Your task to perform on an android device: check storage Image 0: 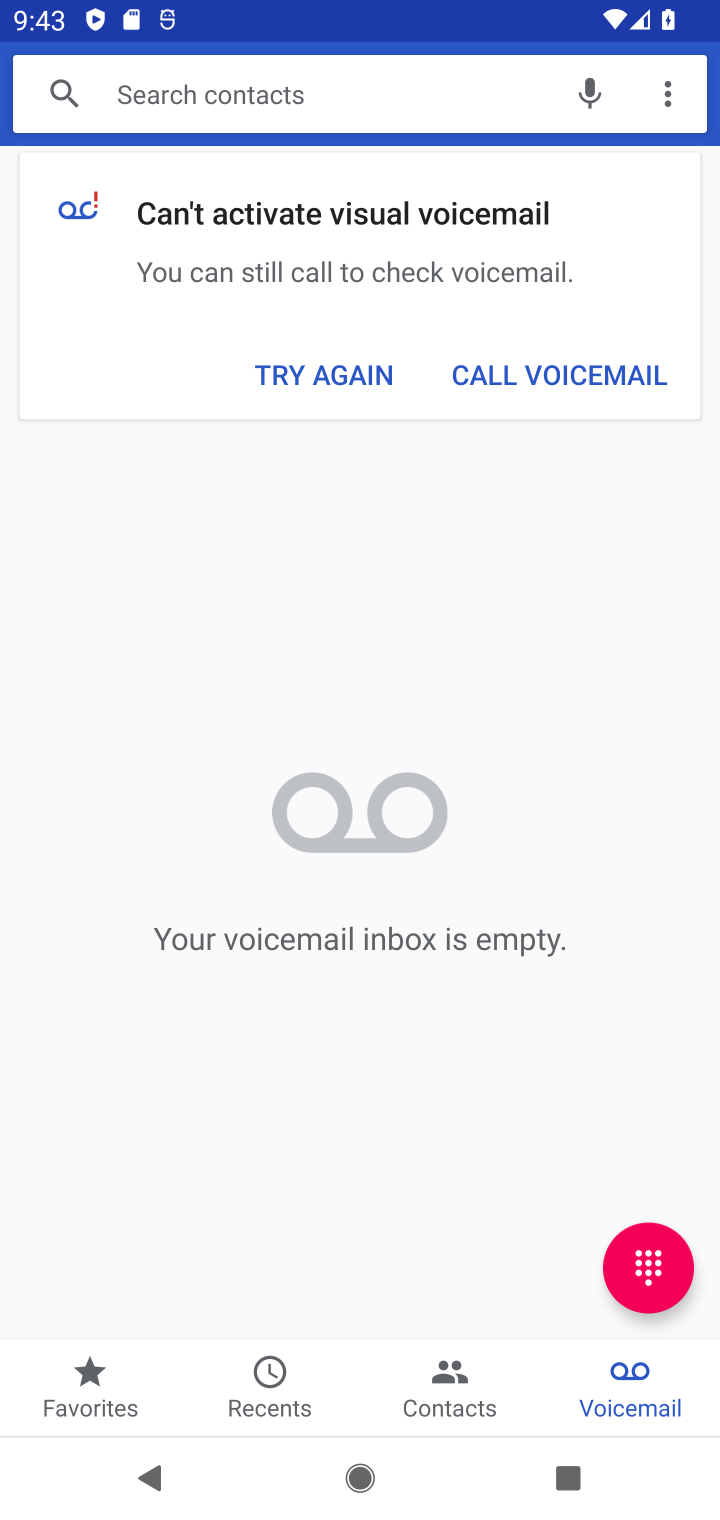
Step 0: press home button
Your task to perform on an android device: check storage Image 1: 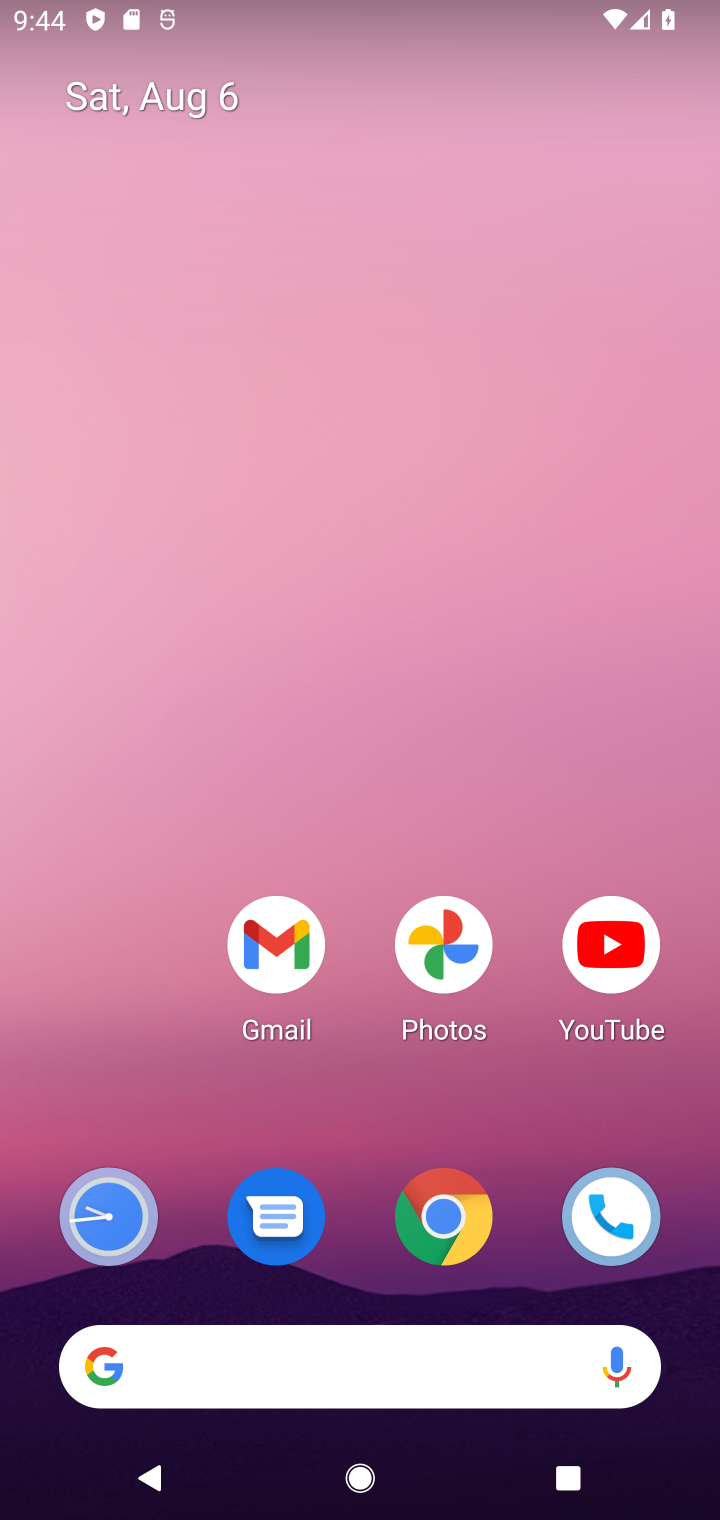
Step 1: drag from (361, 1314) to (361, 186)
Your task to perform on an android device: check storage Image 2: 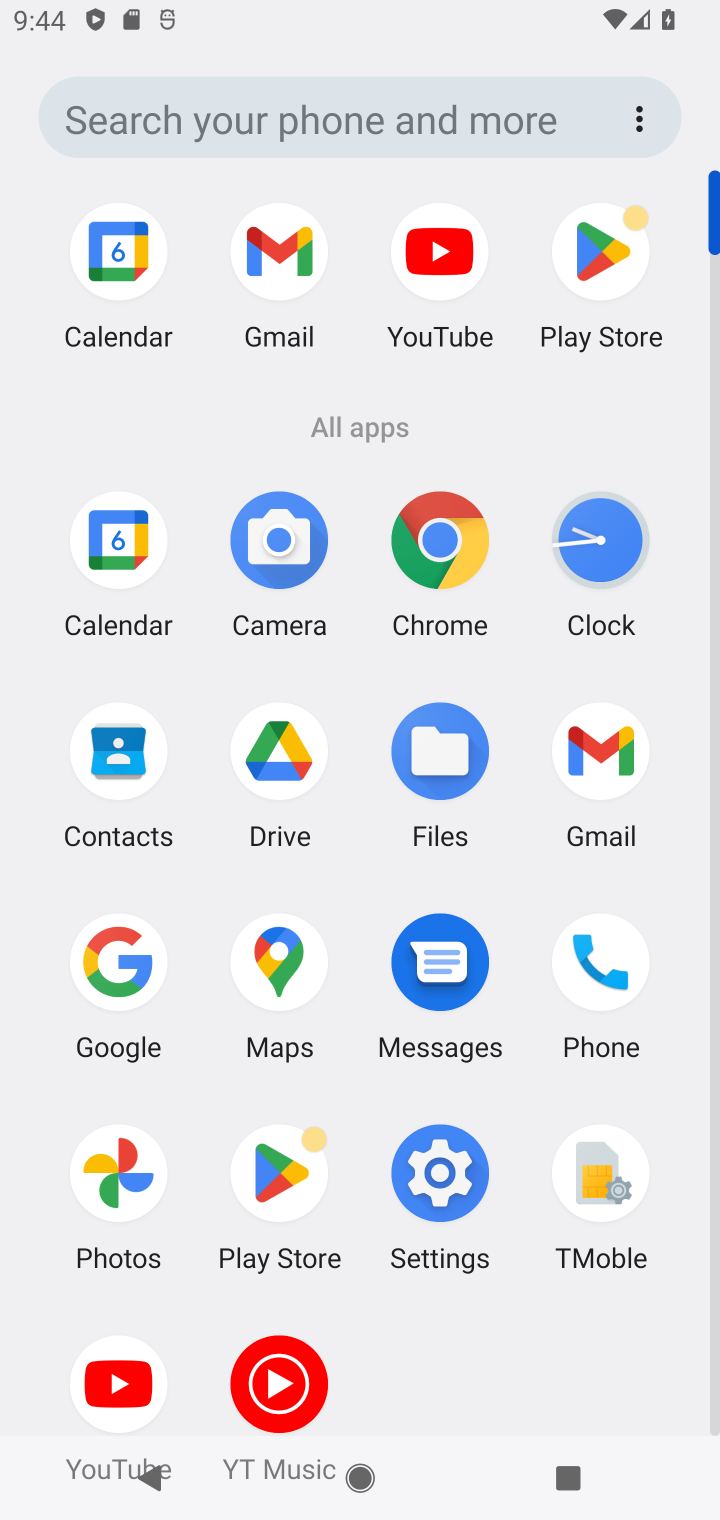
Step 2: click (442, 1181)
Your task to perform on an android device: check storage Image 3: 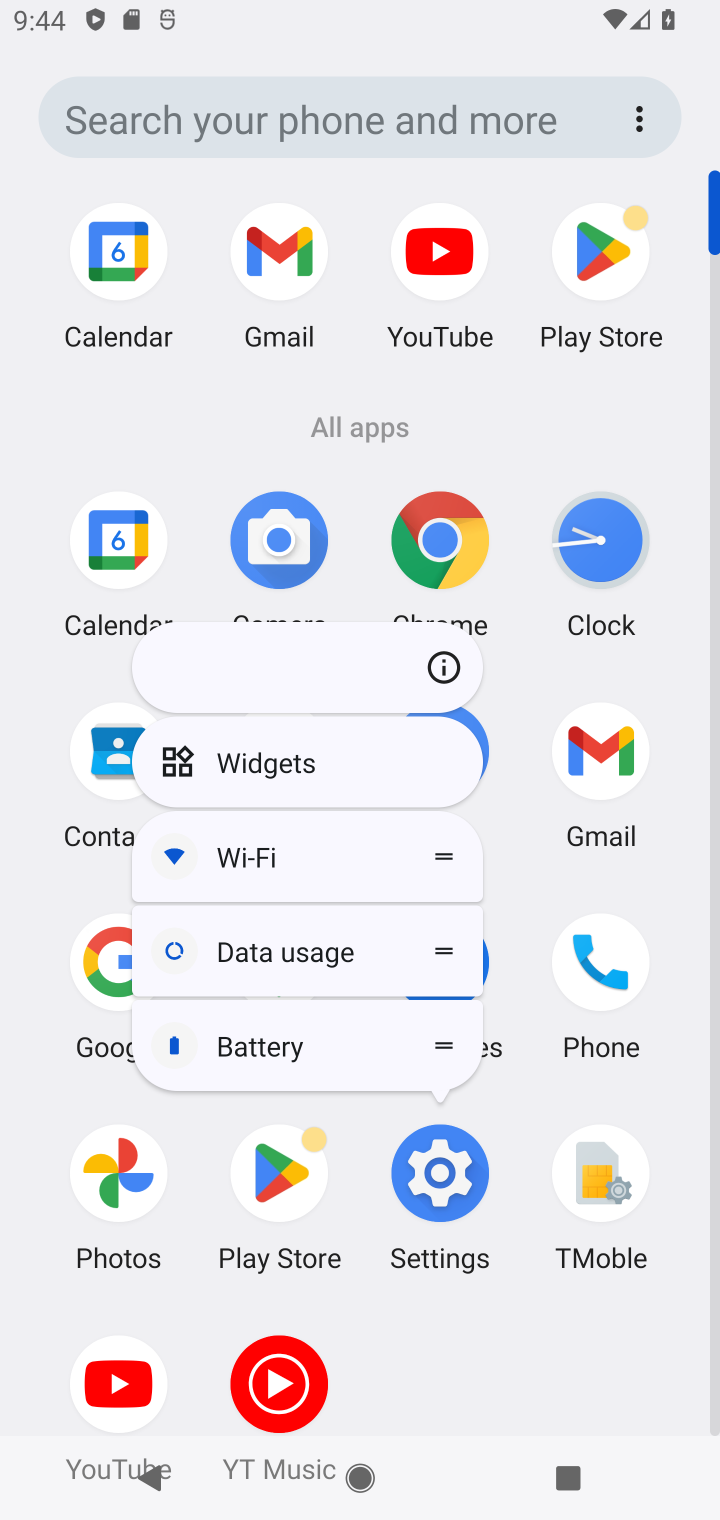
Step 3: click (442, 1178)
Your task to perform on an android device: check storage Image 4: 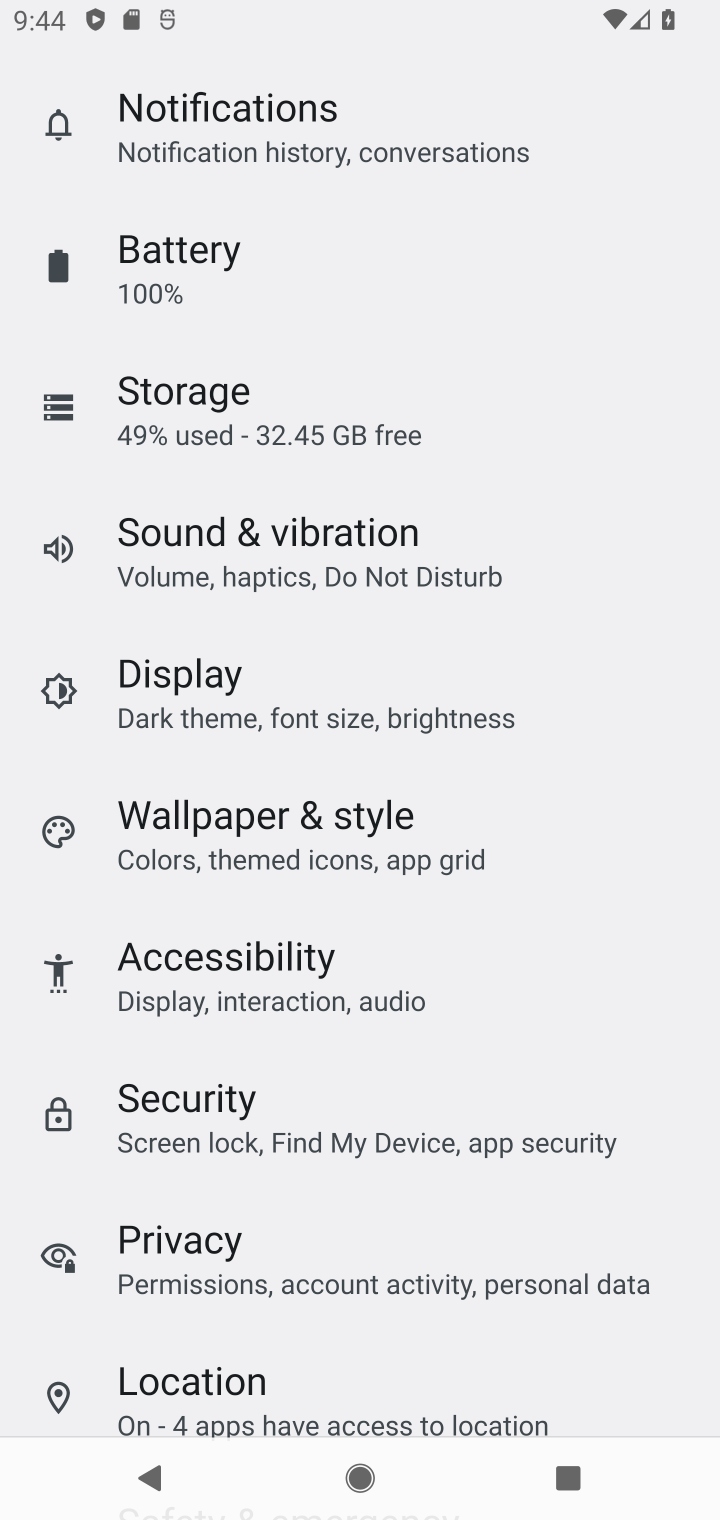
Step 4: click (178, 406)
Your task to perform on an android device: check storage Image 5: 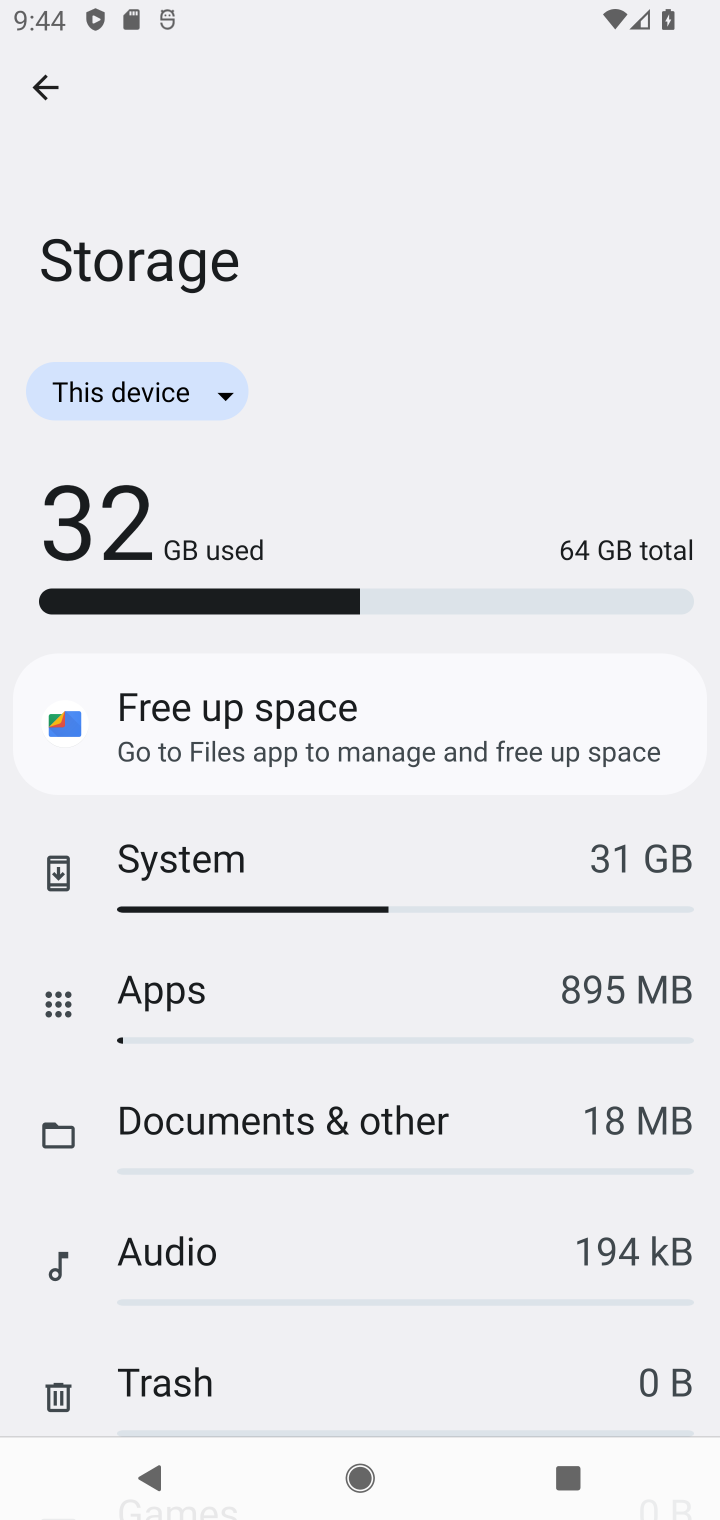
Step 5: task complete